Your task to perform on an android device: Go to eBay Image 0: 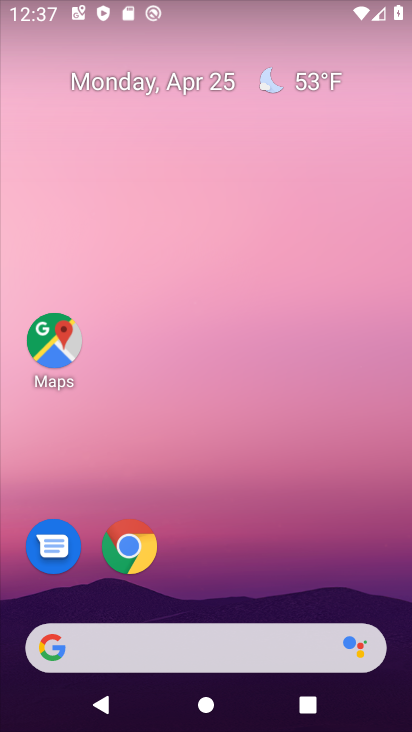
Step 0: click (205, 657)
Your task to perform on an android device: Go to eBay Image 1: 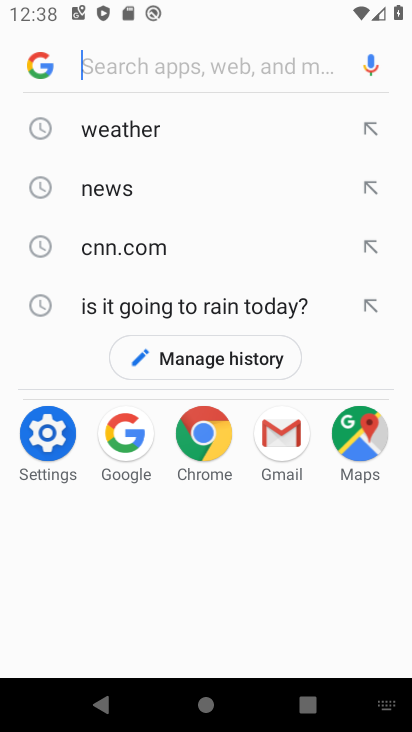
Step 1: type "eBay"
Your task to perform on an android device: Go to eBay Image 2: 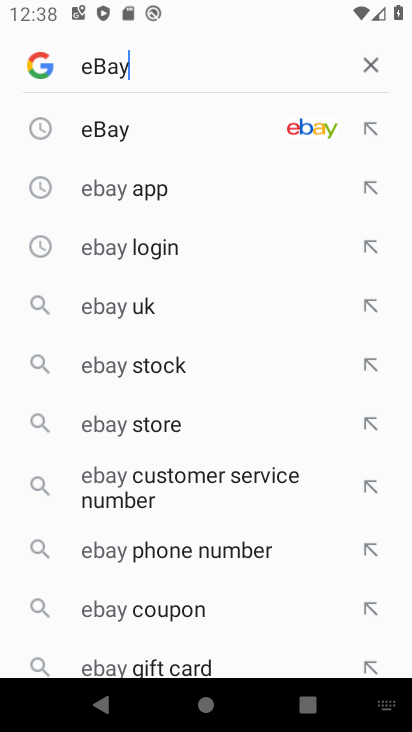
Step 2: click (116, 129)
Your task to perform on an android device: Go to eBay Image 3: 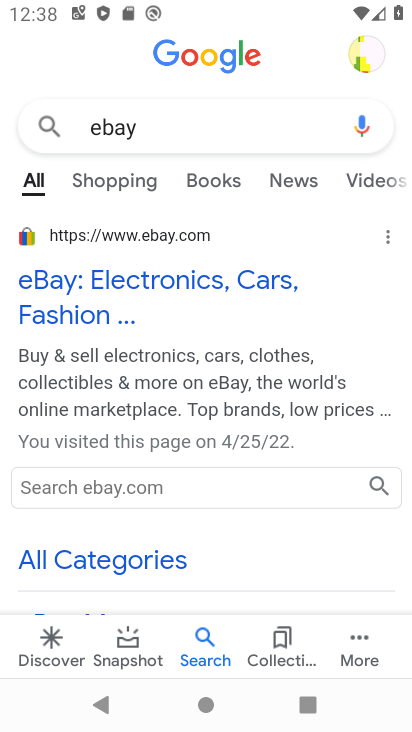
Step 3: click (67, 294)
Your task to perform on an android device: Go to eBay Image 4: 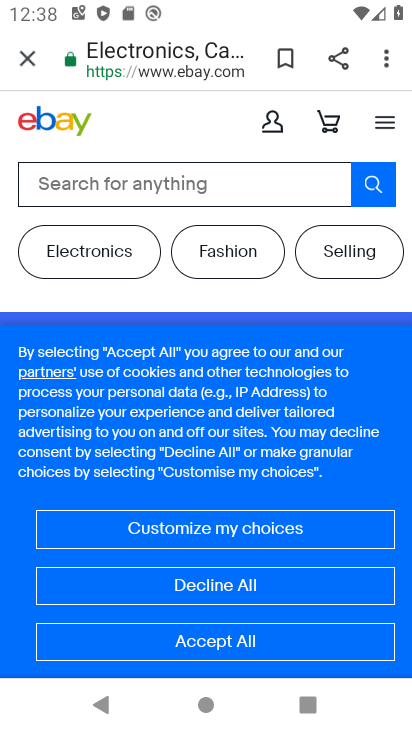
Step 4: task complete